Your task to perform on an android device: Open Amazon Image 0: 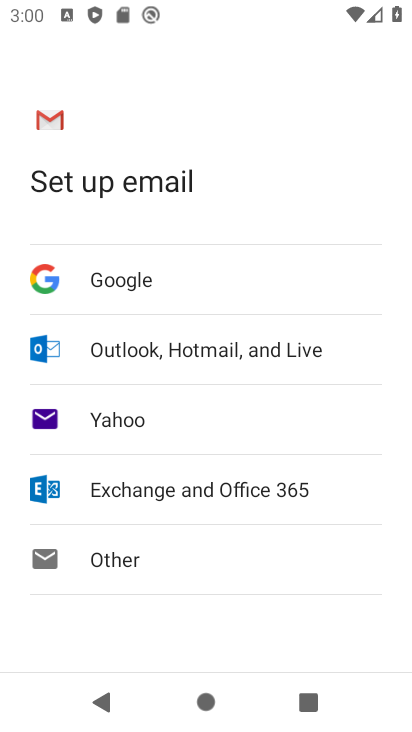
Step 0: press home button
Your task to perform on an android device: Open Amazon Image 1: 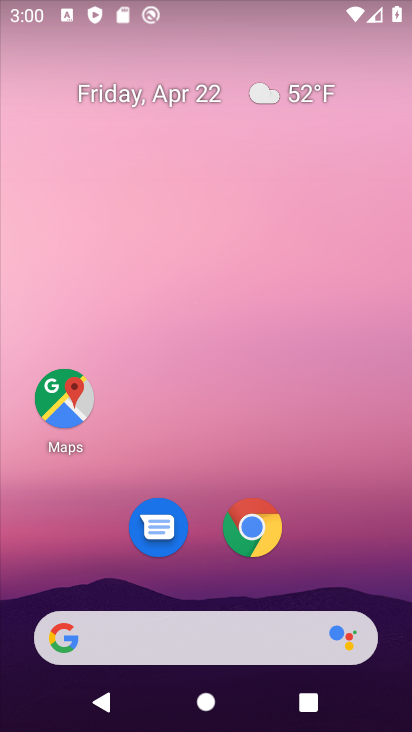
Step 1: drag from (378, 442) to (406, 108)
Your task to perform on an android device: Open Amazon Image 2: 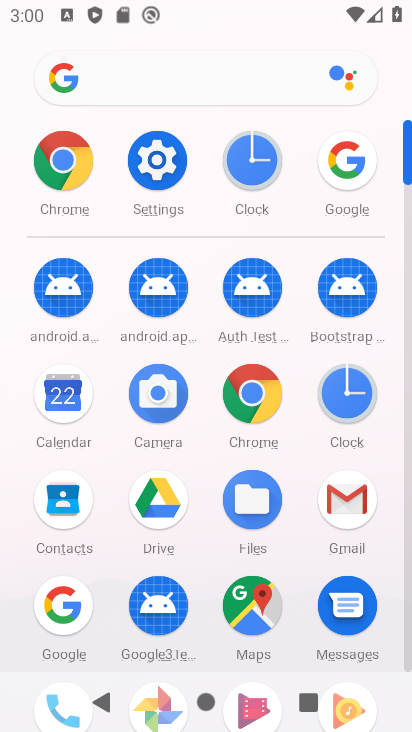
Step 2: click (249, 389)
Your task to perform on an android device: Open Amazon Image 3: 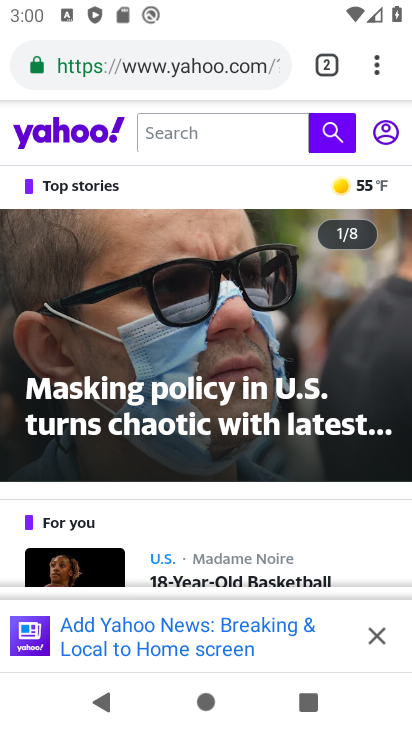
Step 3: click (237, 63)
Your task to perform on an android device: Open Amazon Image 4: 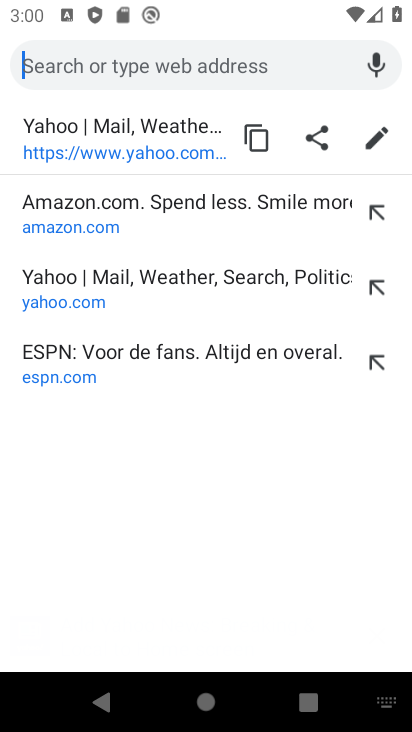
Step 4: type "amzon"
Your task to perform on an android device: Open Amazon Image 5: 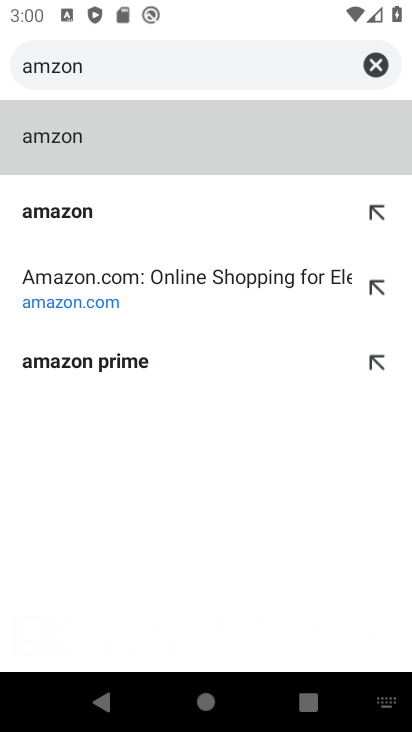
Step 5: click (55, 137)
Your task to perform on an android device: Open Amazon Image 6: 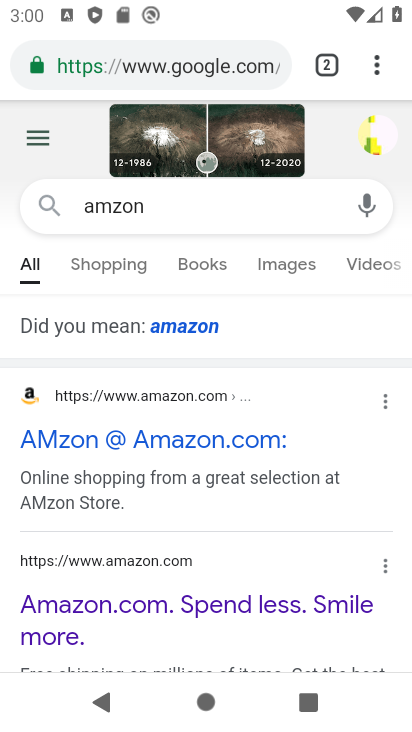
Step 6: click (70, 449)
Your task to perform on an android device: Open Amazon Image 7: 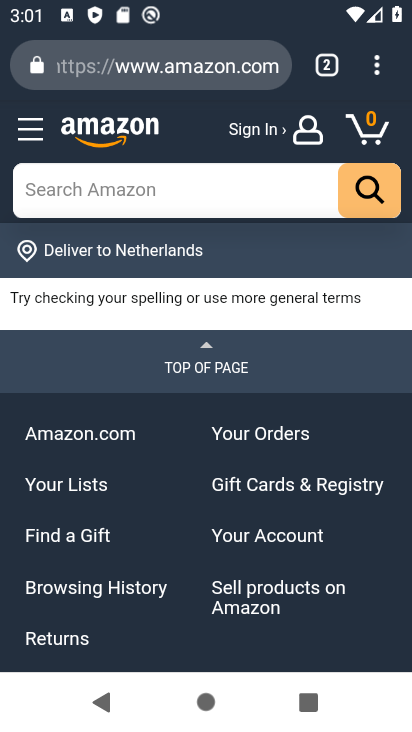
Step 7: task complete